Your task to perform on an android device: toggle airplane mode Image 0: 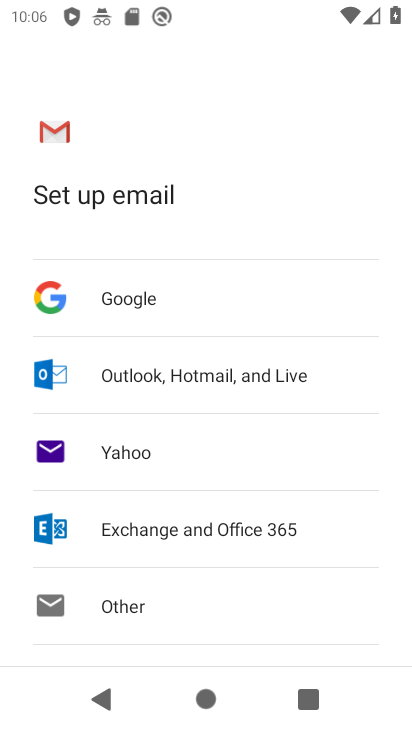
Step 0: press home button
Your task to perform on an android device: toggle airplane mode Image 1: 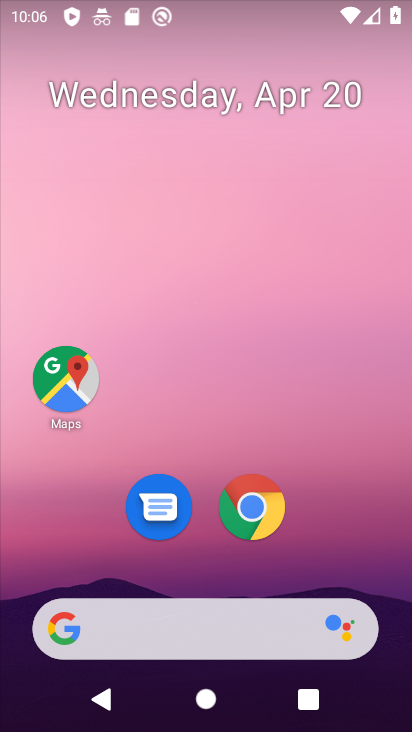
Step 1: drag from (183, 524) to (188, 78)
Your task to perform on an android device: toggle airplane mode Image 2: 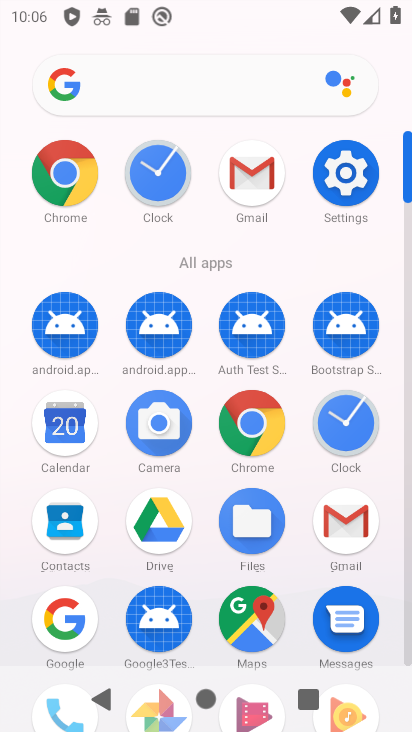
Step 2: click (346, 180)
Your task to perform on an android device: toggle airplane mode Image 3: 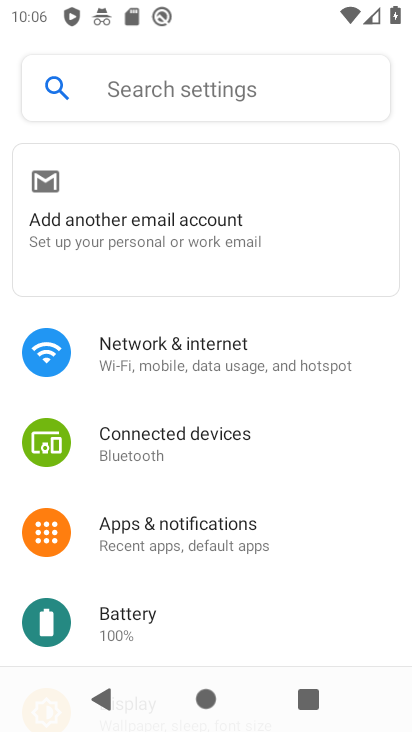
Step 3: click (209, 354)
Your task to perform on an android device: toggle airplane mode Image 4: 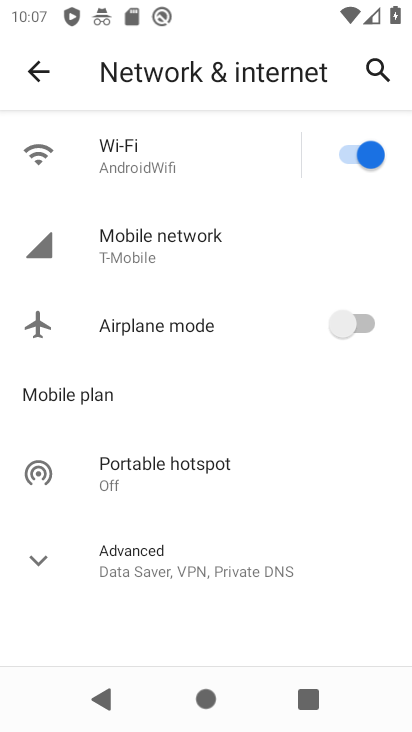
Step 4: click (353, 320)
Your task to perform on an android device: toggle airplane mode Image 5: 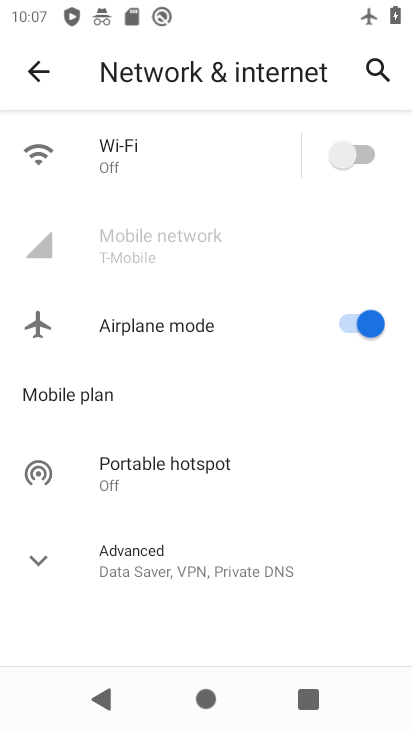
Step 5: task complete